Your task to perform on an android device: turn on data saver in the chrome app Image 0: 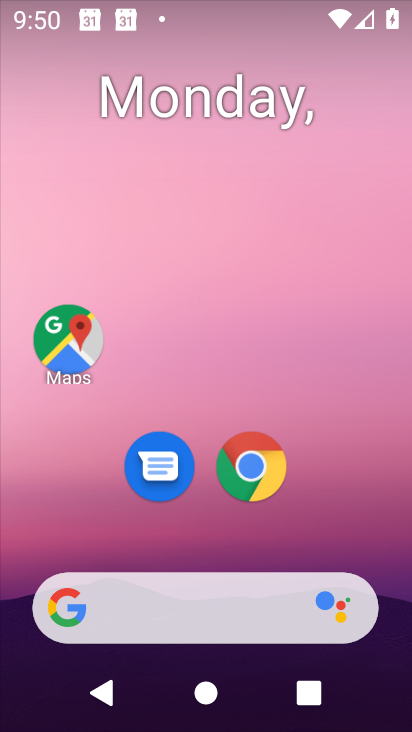
Step 0: drag from (356, 448) to (247, 109)
Your task to perform on an android device: turn on data saver in the chrome app Image 1: 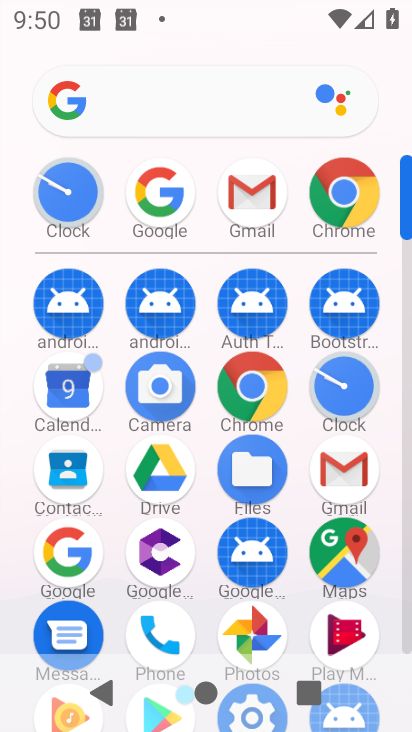
Step 1: click (335, 198)
Your task to perform on an android device: turn on data saver in the chrome app Image 2: 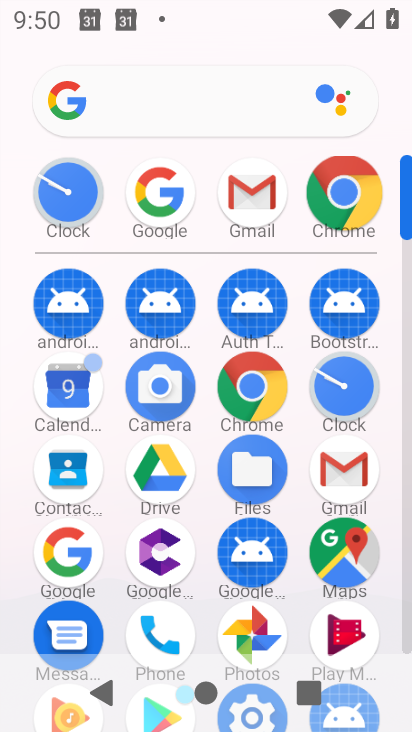
Step 2: click (335, 198)
Your task to perform on an android device: turn on data saver in the chrome app Image 3: 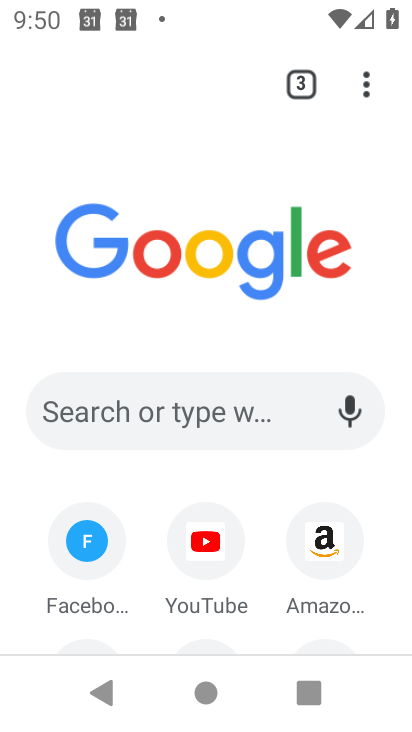
Step 3: drag from (366, 89) to (147, 404)
Your task to perform on an android device: turn on data saver in the chrome app Image 4: 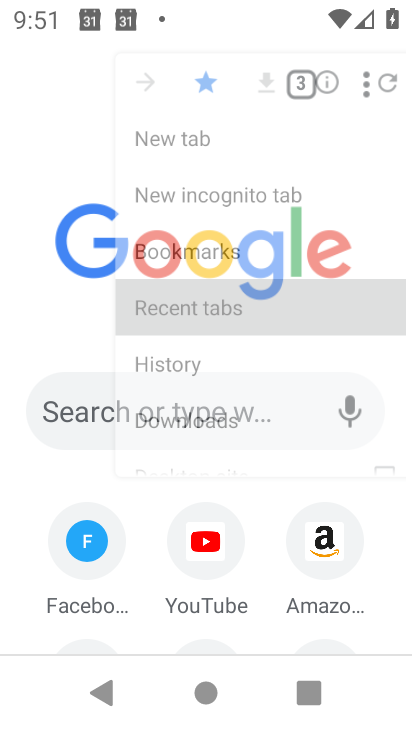
Step 4: click (147, 404)
Your task to perform on an android device: turn on data saver in the chrome app Image 5: 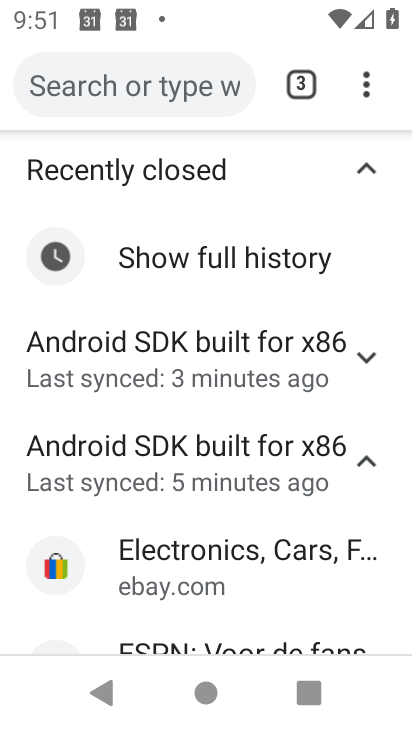
Step 5: click (359, 89)
Your task to perform on an android device: turn on data saver in the chrome app Image 6: 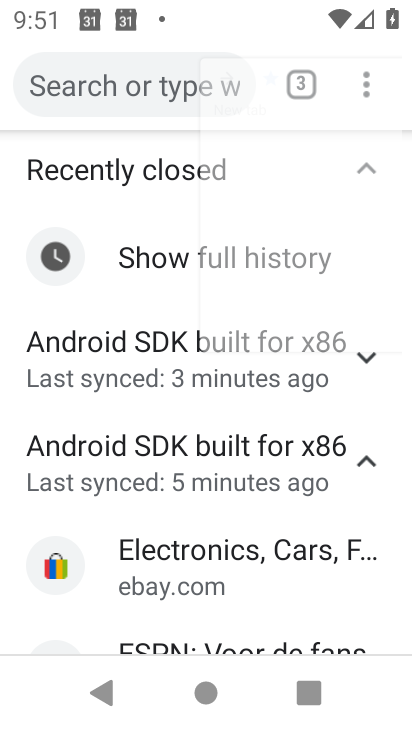
Step 6: click (368, 84)
Your task to perform on an android device: turn on data saver in the chrome app Image 7: 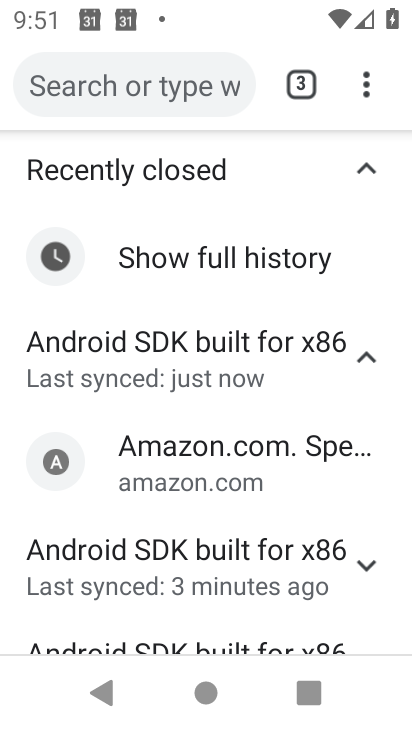
Step 7: click (364, 76)
Your task to perform on an android device: turn on data saver in the chrome app Image 8: 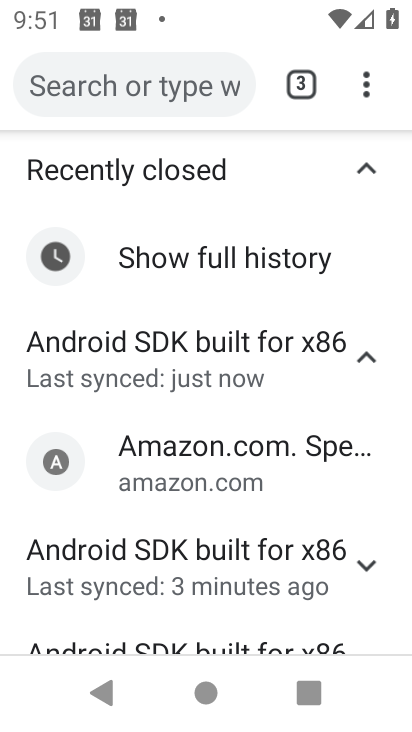
Step 8: click (367, 84)
Your task to perform on an android device: turn on data saver in the chrome app Image 9: 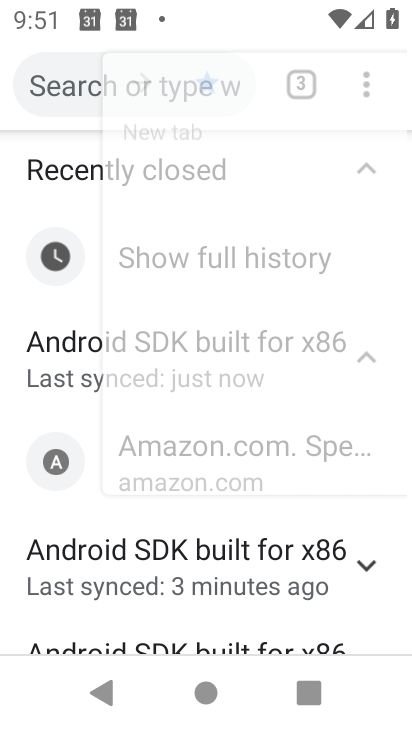
Step 9: click (367, 84)
Your task to perform on an android device: turn on data saver in the chrome app Image 10: 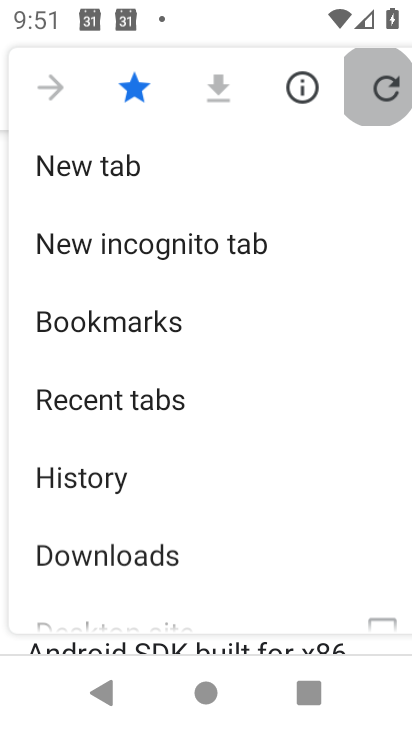
Step 10: drag from (366, 84) to (128, 526)
Your task to perform on an android device: turn on data saver in the chrome app Image 11: 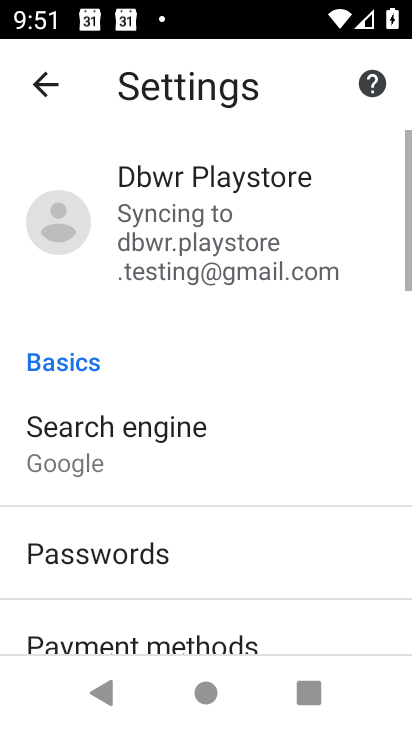
Step 11: drag from (195, 513) to (197, 197)
Your task to perform on an android device: turn on data saver in the chrome app Image 12: 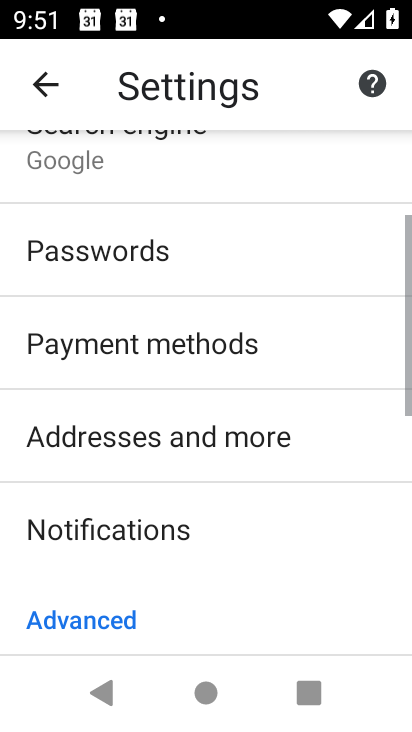
Step 12: drag from (234, 408) to (252, 96)
Your task to perform on an android device: turn on data saver in the chrome app Image 13: 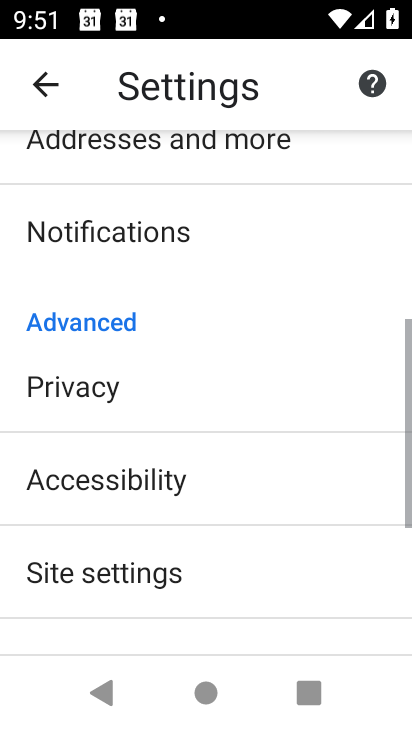
Step 13: drag from (241, 446) to (260, 166)
Your task to perform on an android device: turn on data saver in the chrome app Image 14: 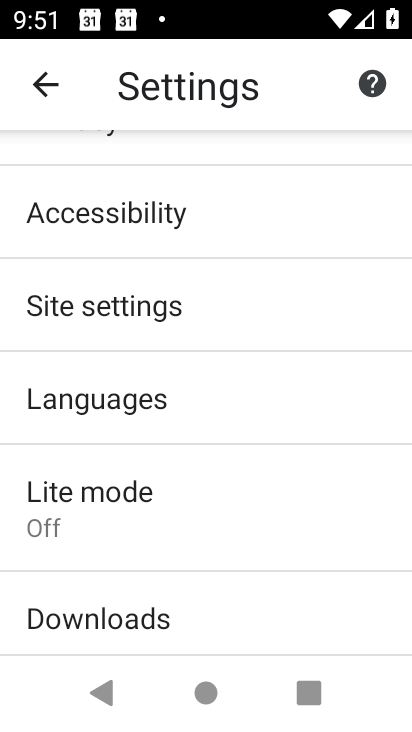
Step 14: click (82, 491)
Your task to perform on an android device: turn on data saver in the chrome app Image 15: 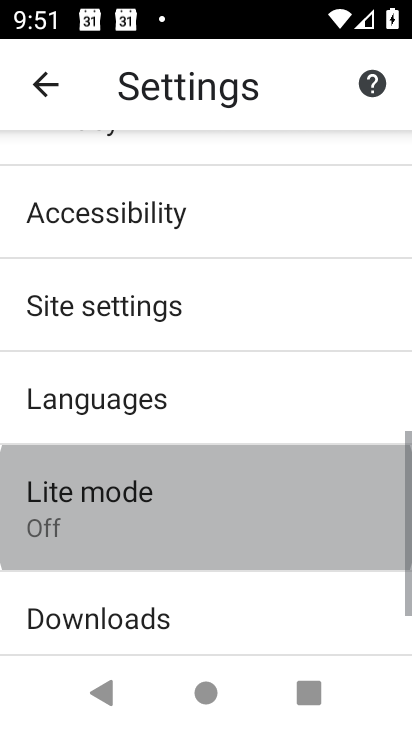
Step 15: click (83, 490)
Your task to perform on an android device: turn on data saver in the chrome app Image 16: 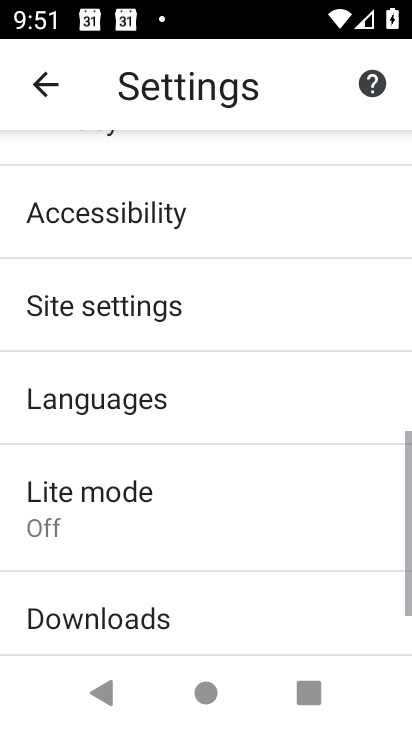
Step 16: click (83, 490)
Your task to perform on an android device: turn on data saver in the chrome app Image 17: 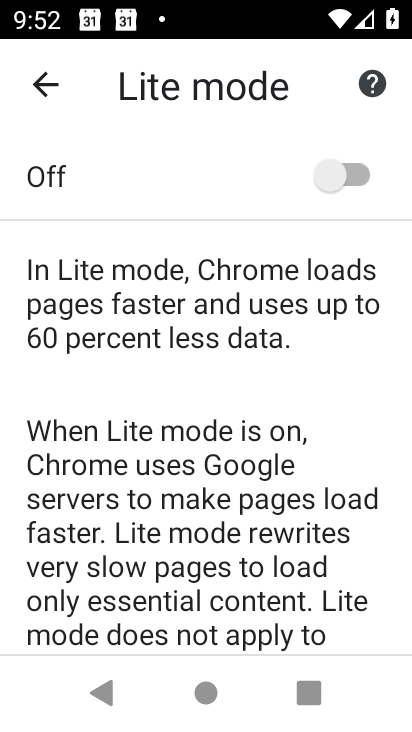
Step 17: drag from (209, 458) to (100, 86)
Your task to perform on an android device: turn on data saver in the chrome app Image 18: 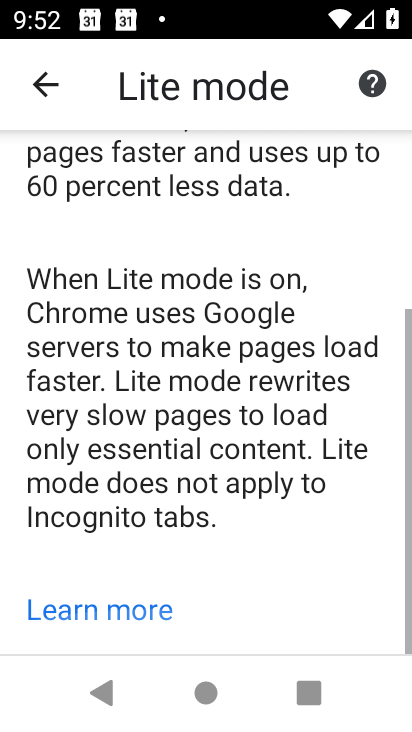
Step 18: drag from (129, 361) to (93, 102)
Your task to perform on an android device: turn on data saver in the chrome app Image 19: 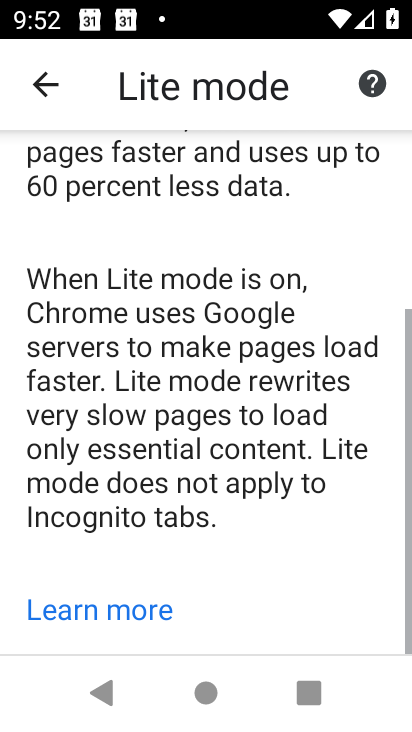
Step 19: drag from (223, 218) to (258, 530)
Your task to perform on an android device: turn on data saver in the chrome app Image 20: 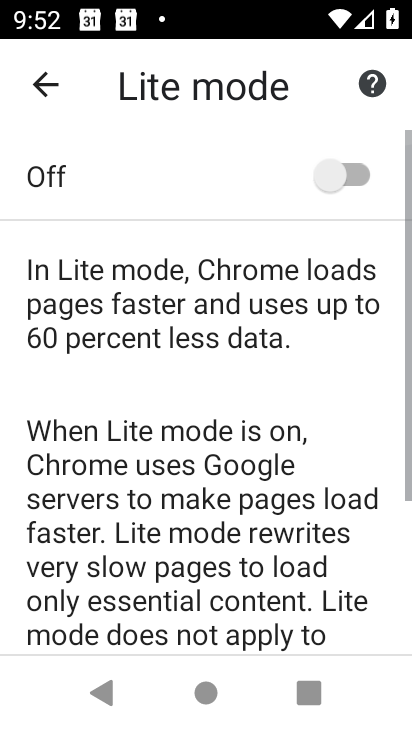
Step 20: drag from (246, 539) to (260, 589)
Your task to perform on an android device: turn on data saver in the chrome app Image 21: 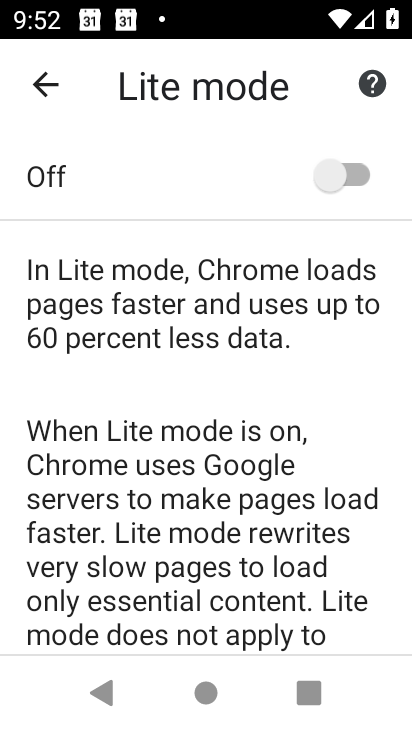
Step 21: drag from (193, 277) to (266, 484)
Your task to perform on an android device: turn on data saver in the chrome app Image 22: 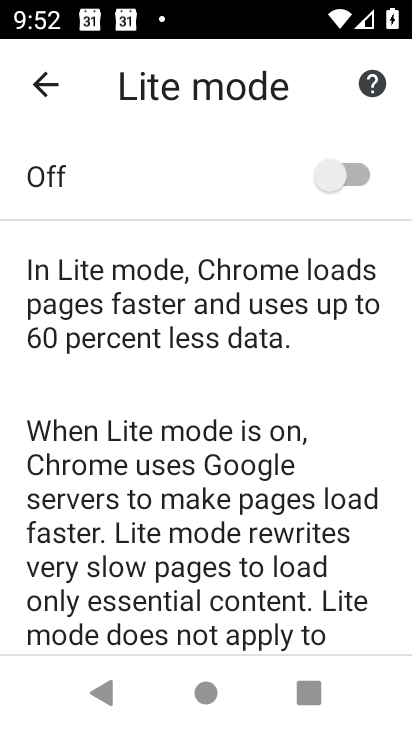
Step 22: click (338, 173)
Your task to perform on an android device: turn on data saver in the chrome app Image 23: 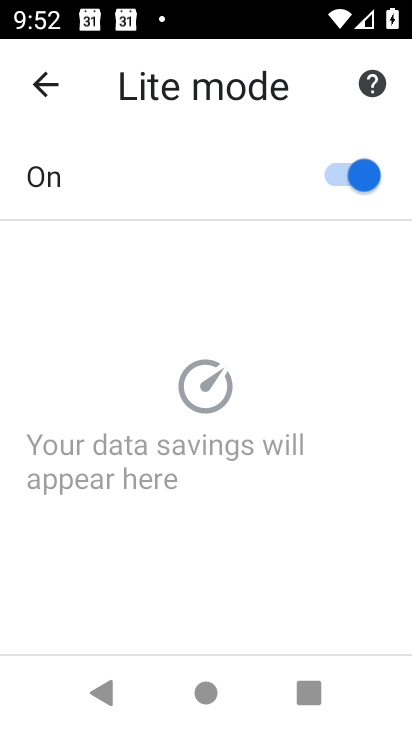
Step 23: task complete